Your task to perform on an android device: Toggle the flashlight Image 0: 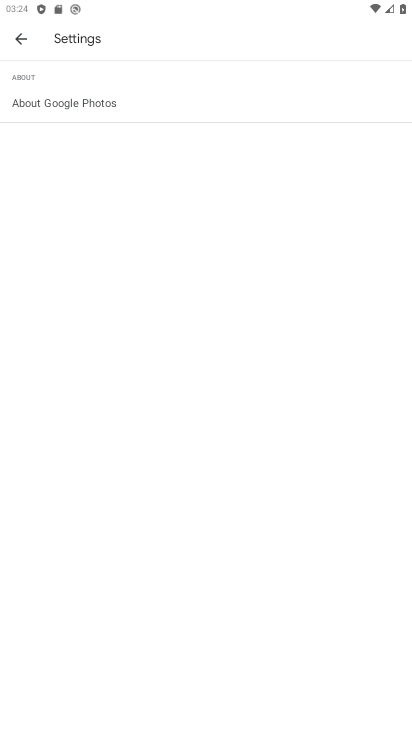
Step 0: press home button
Your task to perform on an android device: Toggle the flashlight Image 1: 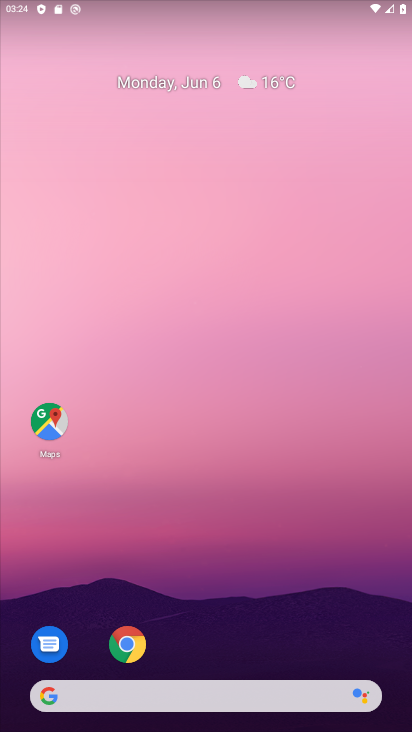
Step 1: drag from (395, 697) to (275, 49)
Your task to perform on an android device: Toggle the flashlight Image 2: 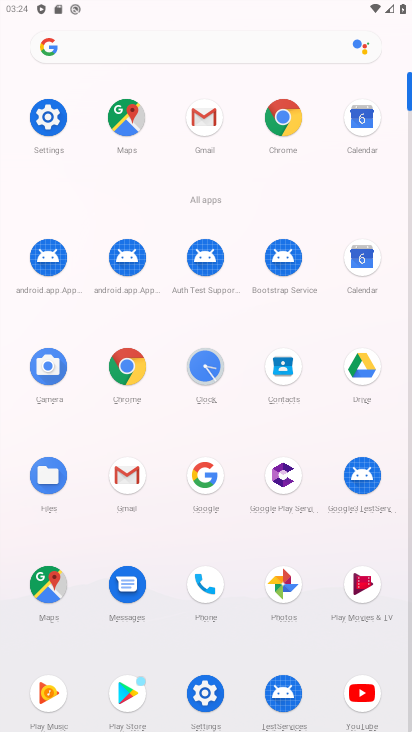
Step 2: click (197, 684)
Your task to perform on an android device: Toggle the flashlight Image 3: 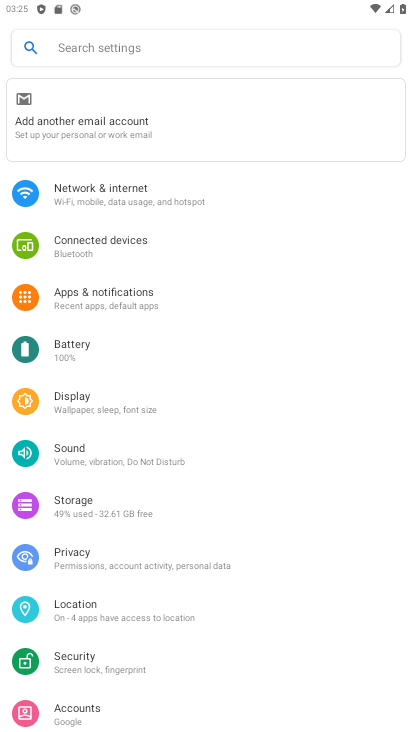
Step 3: click (105, 296)
Your task to perform on an android device: Toggle the flashlight Image 4: 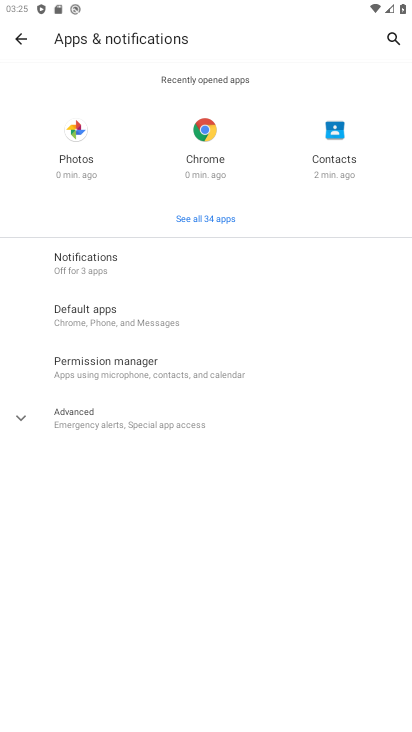
Step 4: click (14, 34)
Your task to perform on an android device: Toggle the flashlight Image 5: 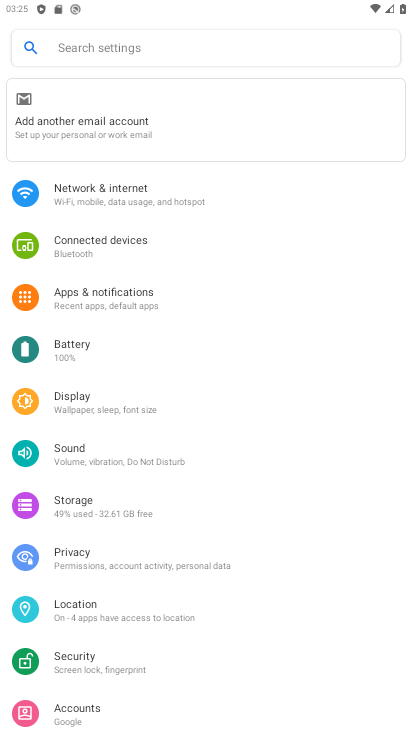
Step 5: click (74, 407)
Your task to perform on an android device: Toggle the flashlight Image 6: 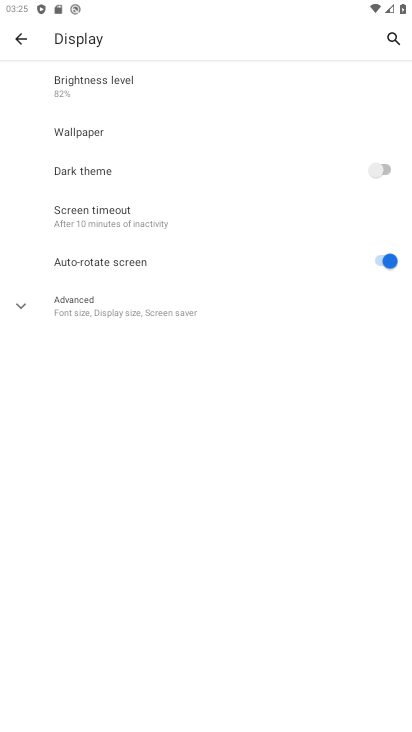
Step 6: task complete